Your task to perform on an android device: change notifications settings Image 0: 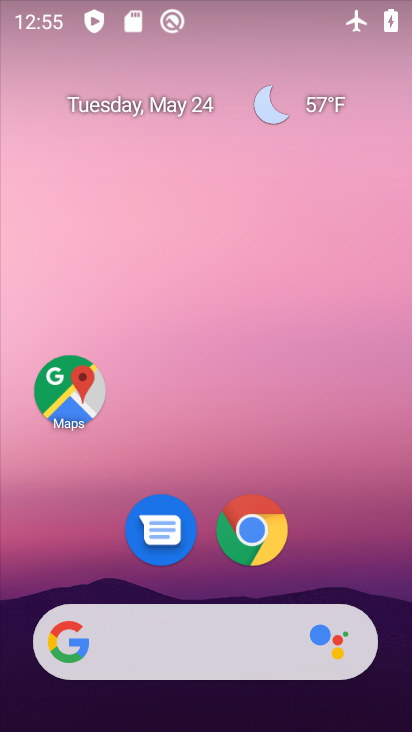
Step 0: drag from (357, 586) to (332, 130)
Your task to perform on an android device: change notifications settings Image 1: 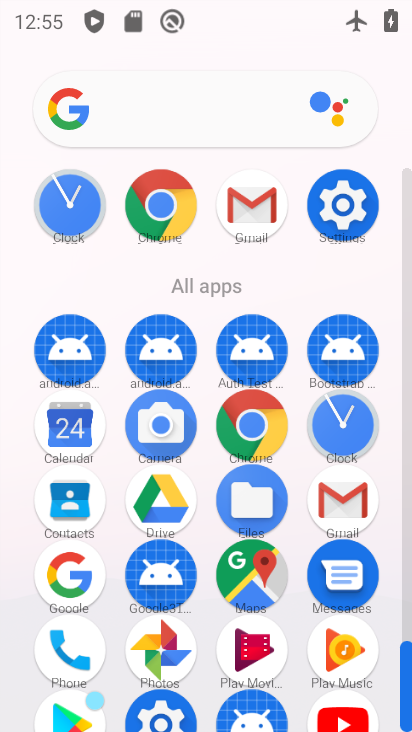
Step 1: click (351, 196)
Your task to perform on an android device: change notifications settings Image 2: 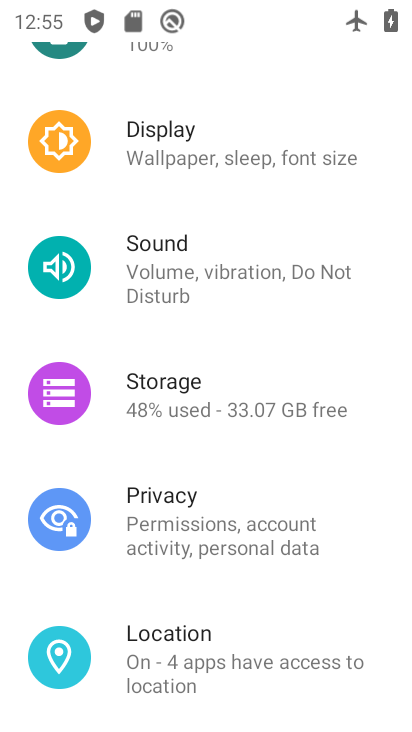
Step 2: drag from (345, 235) to (306, 649)
Your task to perform on an android device: change notifications settings Image 3: 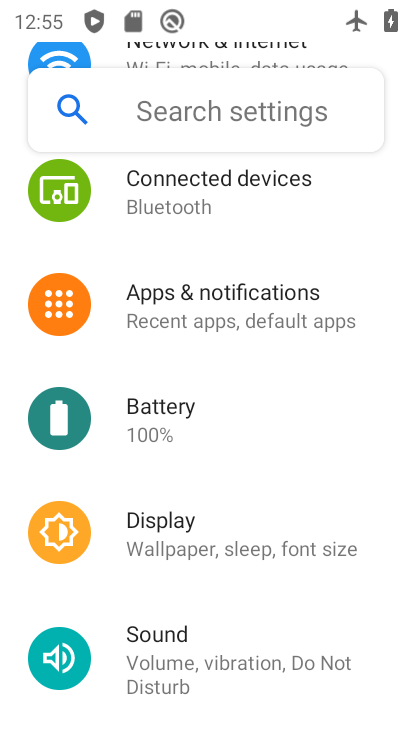
Step 3: click (348, 297)
Your task to perform on an android device: change notifications settings Image 4: 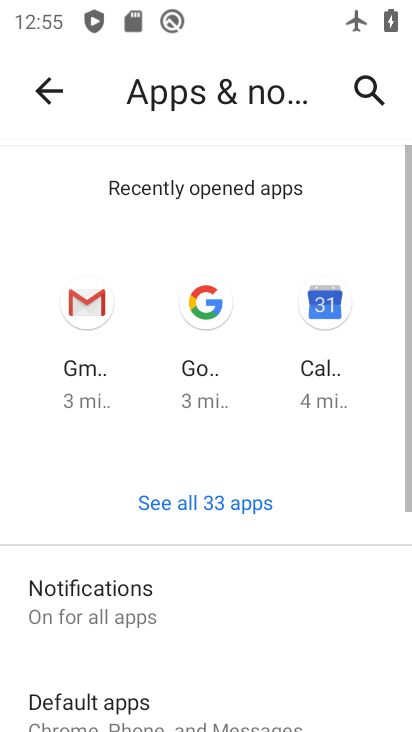
Step 4: click (169, 600)
Your task to perform on an android device: change notifications settings Image 5: 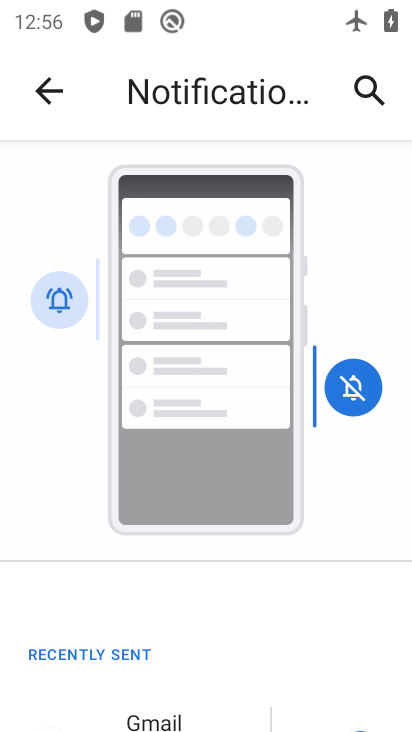
Step 5: drag from (219, 627) to (132, 154)
Your task to perform on an android device: change notifications settings Image 6: 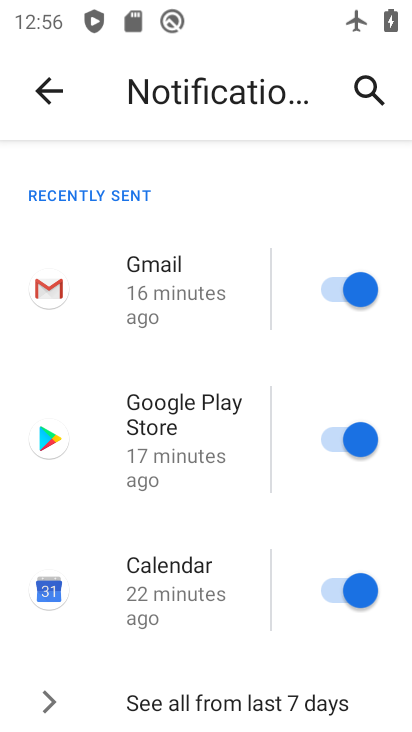
Step 6: click (179, 699)
Your task to perform on an android device: change notifications settings Image 7: 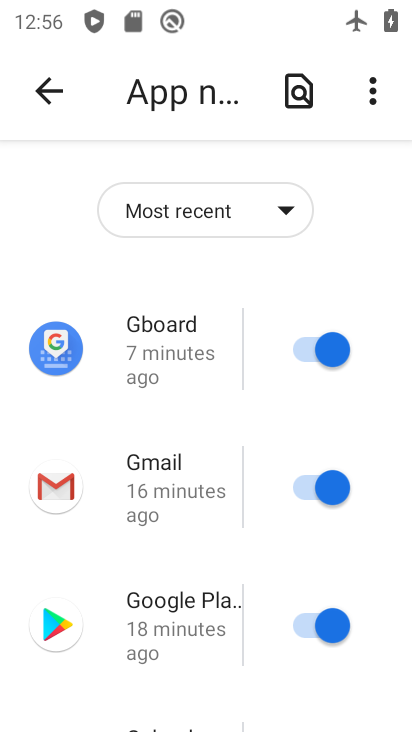
Step 7: click (292, 357)
Your task to perform on an android device: change notifications settings Image 8: 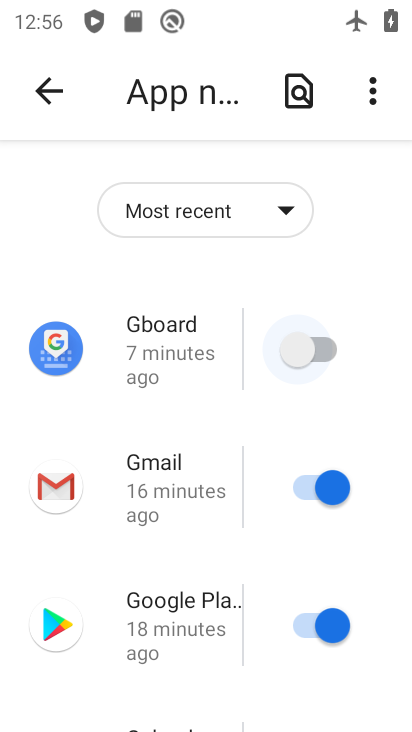
Step 8: click (292, 479)
Your task to perform on an android device: change notifications settings Image 9: 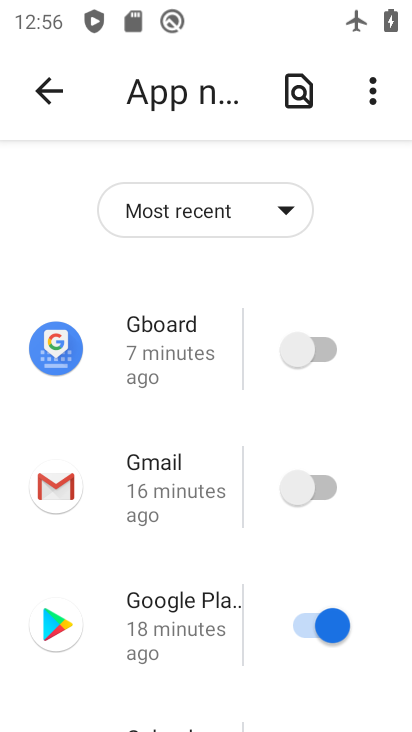
Step 9: click (306, 616)
Your task to perform on an android device: change notifications settings Image 10: 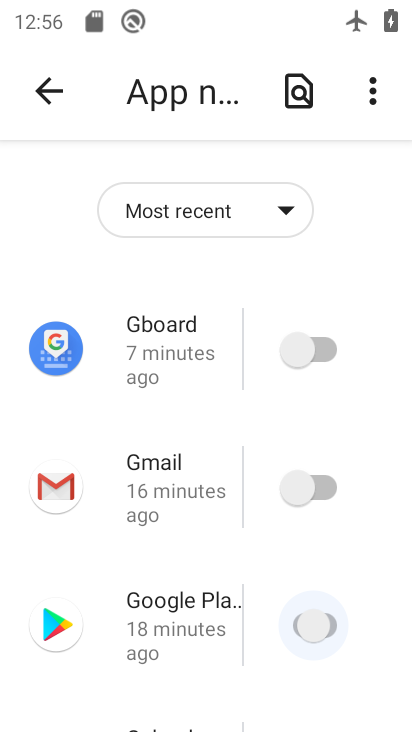
Step 10: drag from (140, 659) to (142, 189)
Your task to perform on an android device: change notifications settings Image 11: 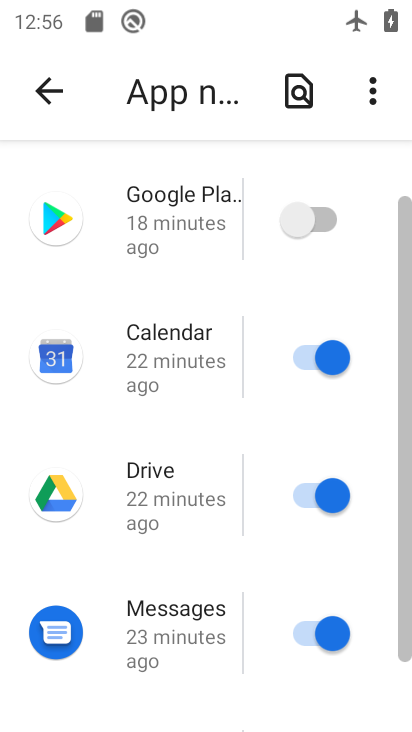
Step 11: click (329, 332)
Your task to perform on an android device: change notifications settings Image 12: 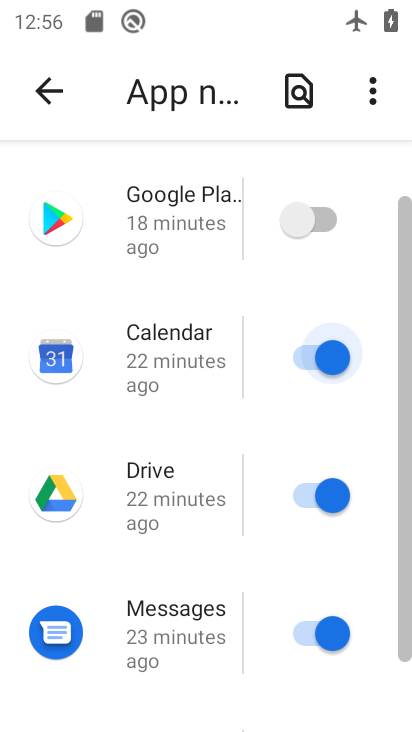
Step 12: click (342, 467)
Your task to perform on an android device: change notifications settings Image 13: 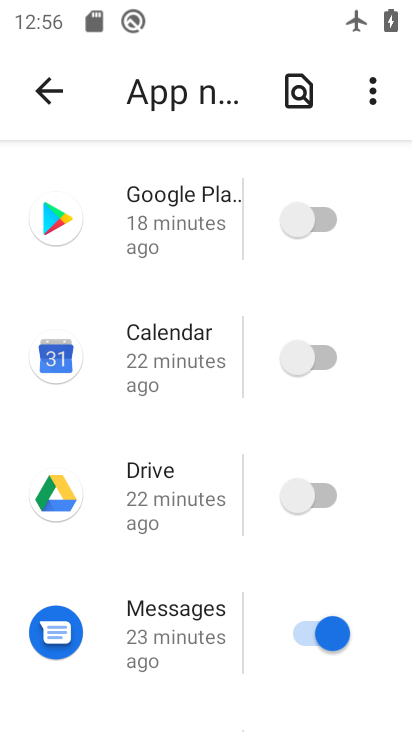
Step 13: click (303, 615)
Your task to perform on an android device: change notifications settings Image 14: 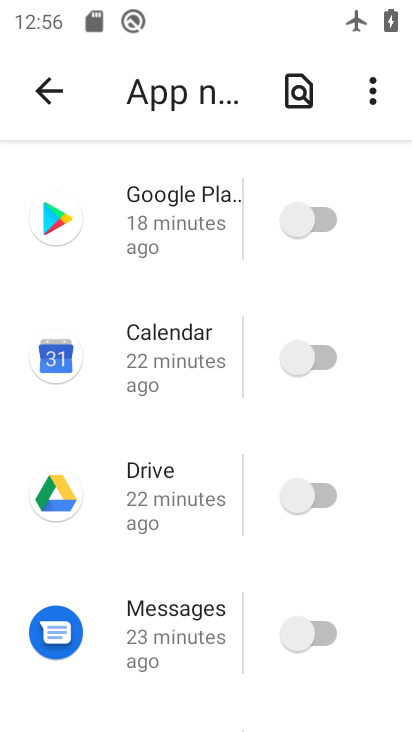
Step 14: drag from (236, 652) to (239, 224)
Your task to perform on an android device: change notifications settings Image 15: 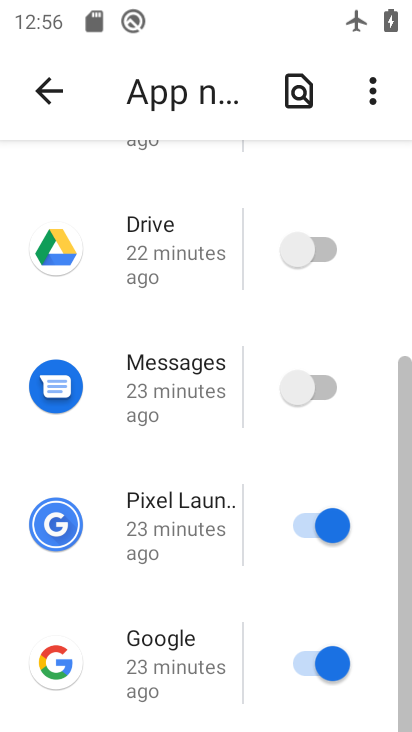
Step 15: click (297, 503)
Your task to perform on an android device: change notifications settings Image 16: 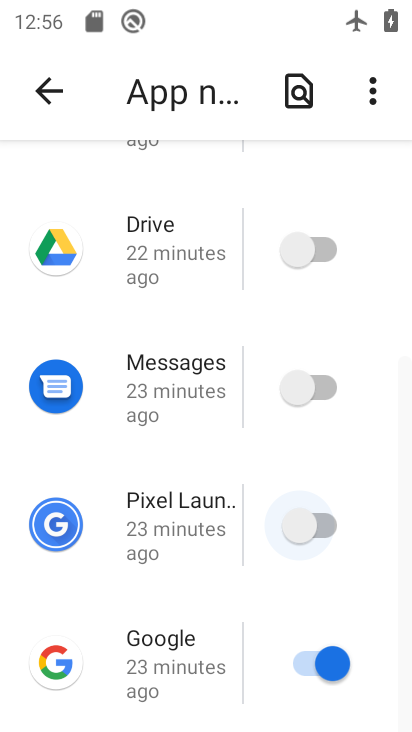
Step 16: click (311, 686)
Your task to perform on an android device: change notifications settings Image 17: 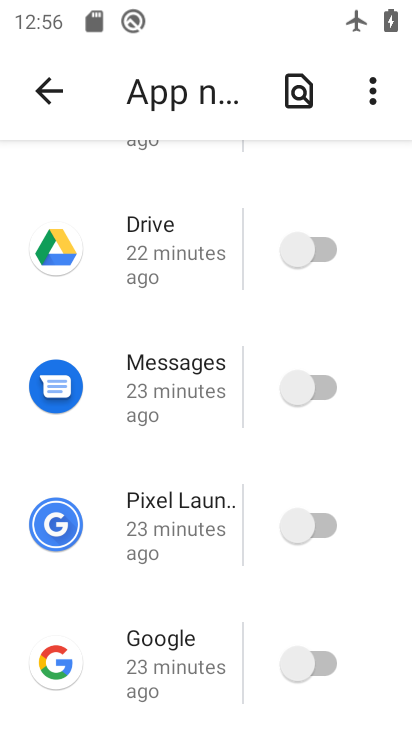
Step 17: click (48, 101)
Your task to perform on an android device: change notifications settings Image 18: 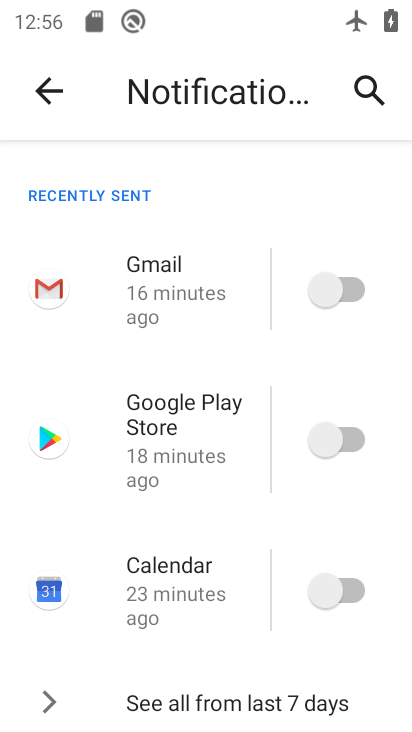
Step 18: drag from (137, 548) to (160, 170)
Your task to perform on an android device: change notifications settings Image 19: 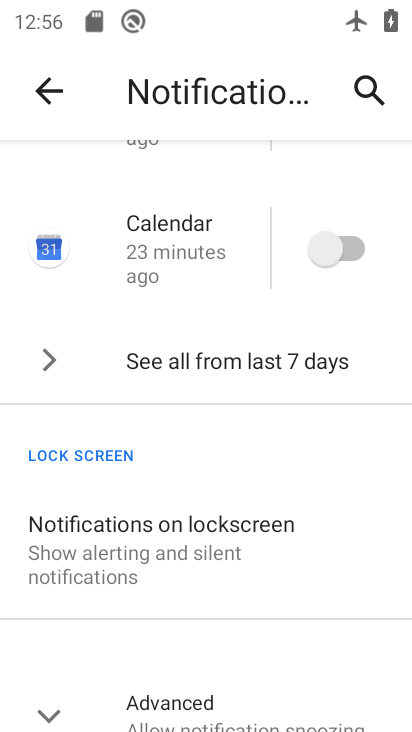
Step 19: click (109, 572)
Your task to perform on an android device: change notifications settings Image 20: 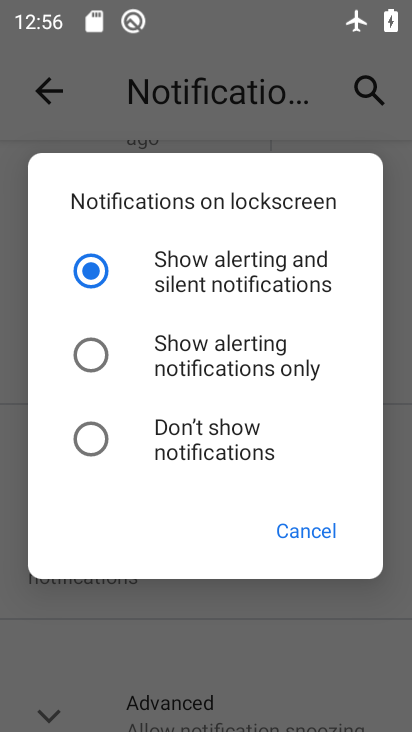
Step 20: click (168, 366)
Your task to perform on an android device: change notifications settings Image 21: 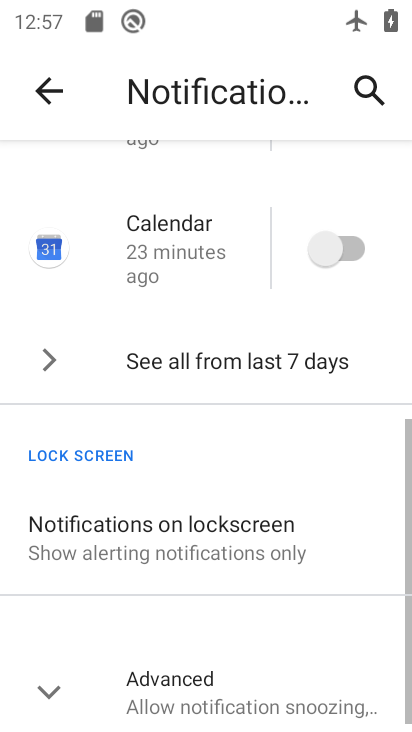
Step 21: drag from (200, 627) to (200, 330)
Your task to perform on an android device: change notifications settings Image 22: 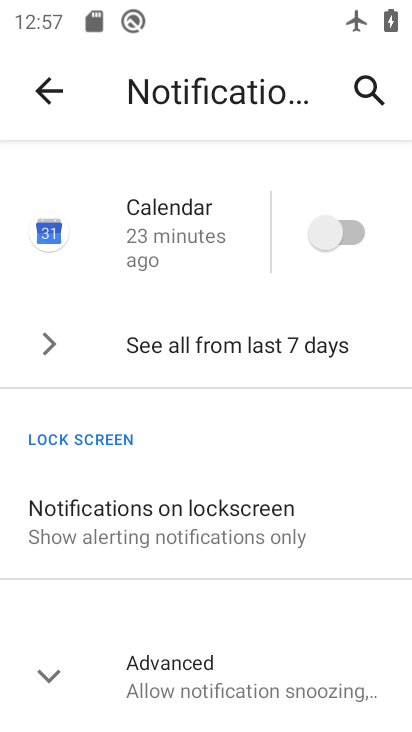
Step 22: click (140, 697)
Your task to perform on an android device: change notifications settings Image 23: 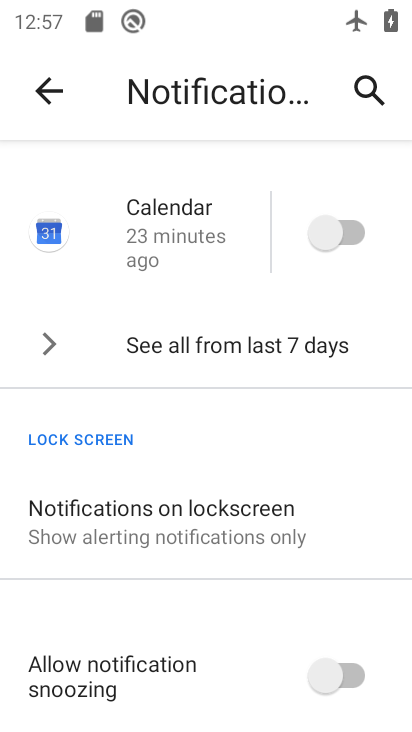
Step 23: drag from (235, 680) to (228, 175)
Your task to perform on an android device: change notifications settings Image 24: 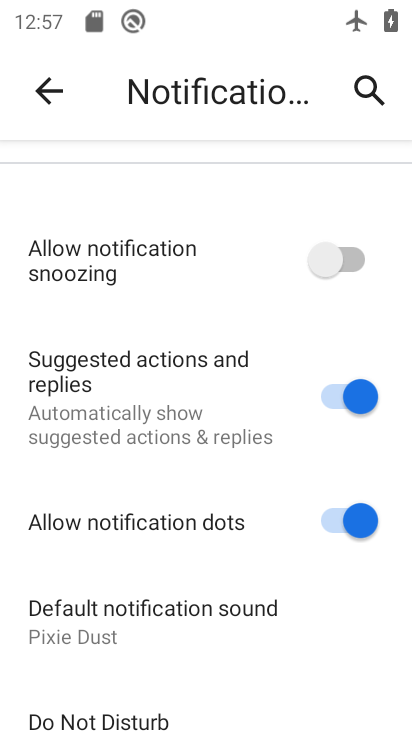
Step 24: click (338, 540)
Your task to perform on an android device: change notifications settings Image 25: 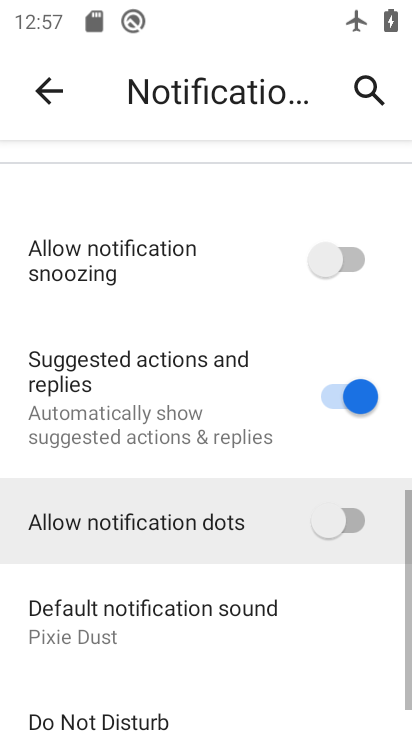
Step 25: click (326, 367)
Your task to perform on an android device: change notifications settings Image 26: 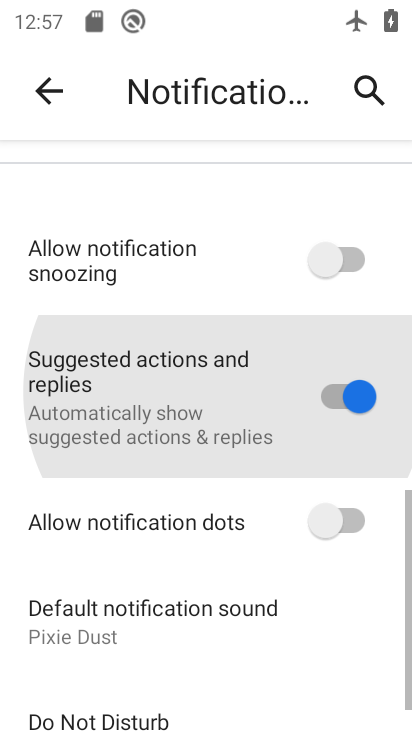
Step 26: click (316, 215)
Your task to perform on an android device: change notifications settings Image 27: 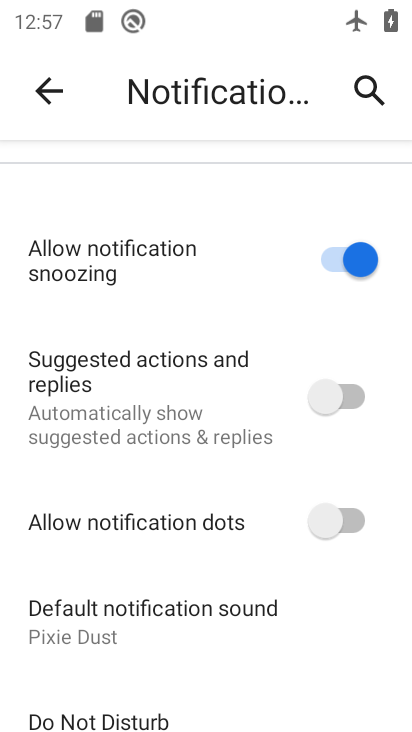
Step 27: task complete